Your task to perform on an android device: make emails show in primary in the gmail app Image 0: 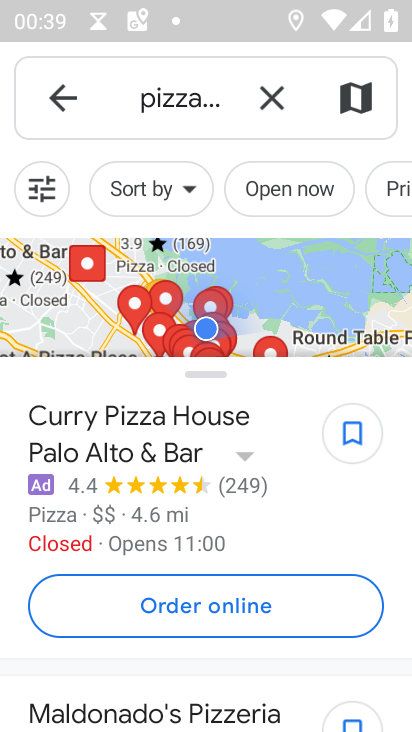
Step 0: press home button
Your task to perform on an android device: make emails show in primary in the gmail app Image 1: 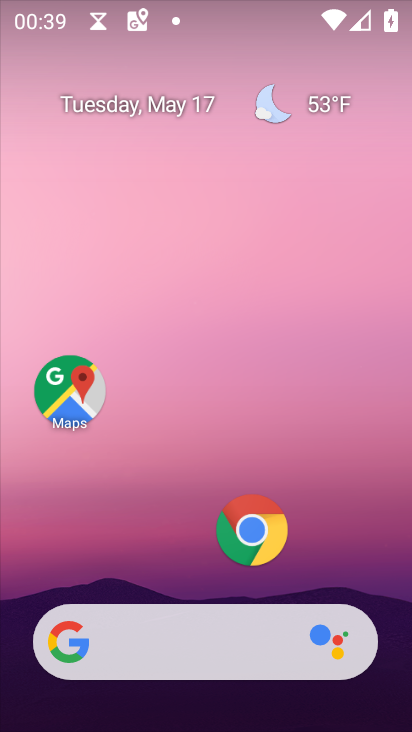
Step 1: drag from (117, 556) to (114, 67)
Your task to perform on an android device: make emails show in primary in the gmail app Image 2: 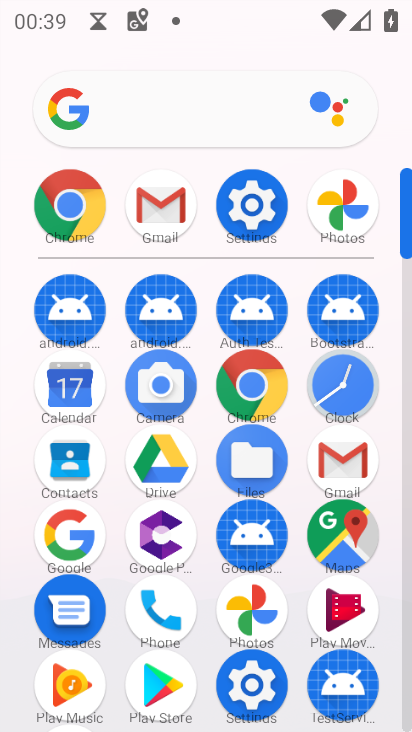
Step 2: click (174, 195)
Your task to perform on an android device: make emails show in primary in the gmail app Image 3: 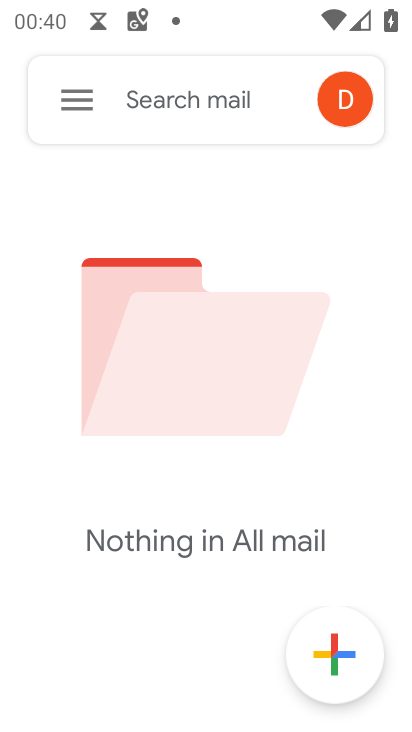
Step 3: click (81, 116)
Your task to perform on an android device: make emails show in primary in the gmail app Image 4: 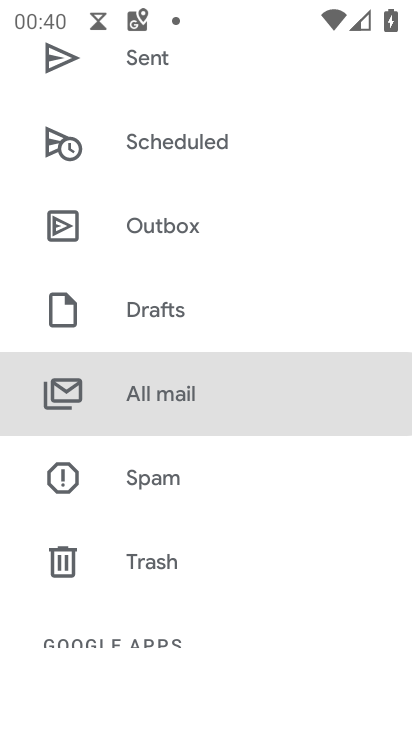
Step 4: drag from (210, 597) to (228, 351)
Your task to perform on an android device: make emails show in primary in the gmail app Image 5: 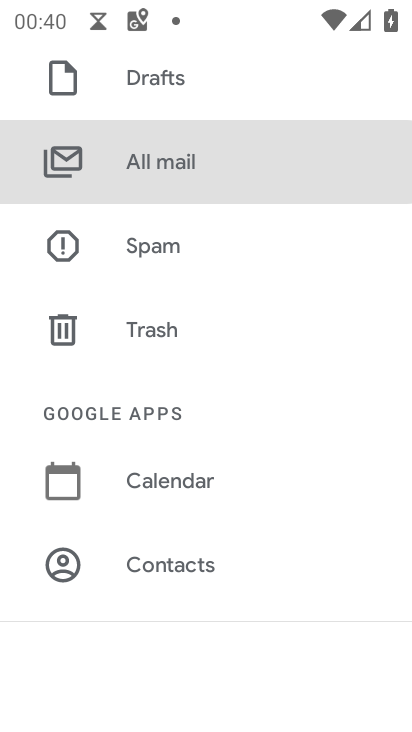
Step 5: drag from (242, 579) to (268, 395)
Your task to perform on an android device: make emails show in primary in the gmail app Image 6: 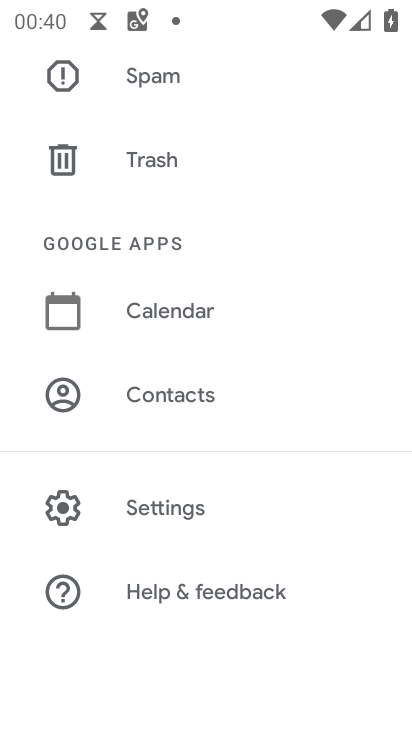
Step 6: click (204, 515)
Your task to perform on an android device: make emails show in primary in the gmail app Image 7: 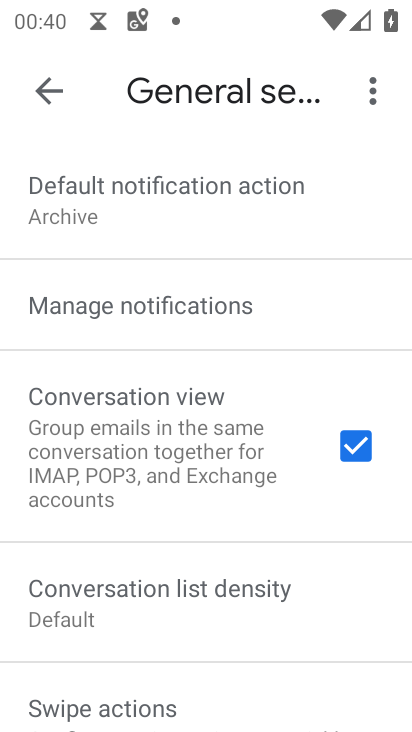
Step 7: drag from (274, 617) to (217, 238)
Your task to perform on an android device: make emails show in primary in the gmail app Image 8: 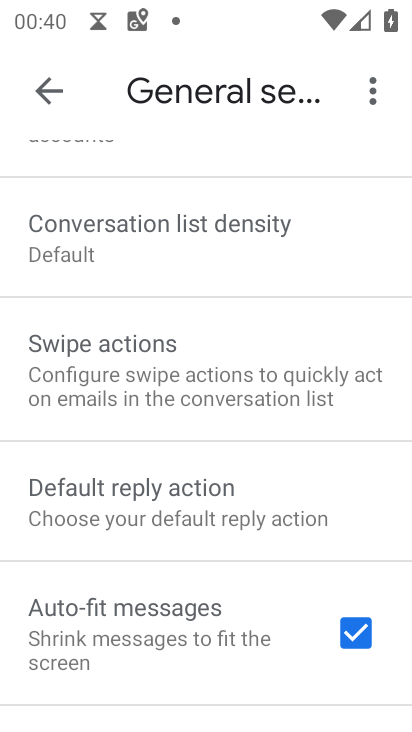
Step 8: drag from (217, 239) to (252, 474)
Your task to perform on an android device: make emails show in primary in the gmail app Image 9: 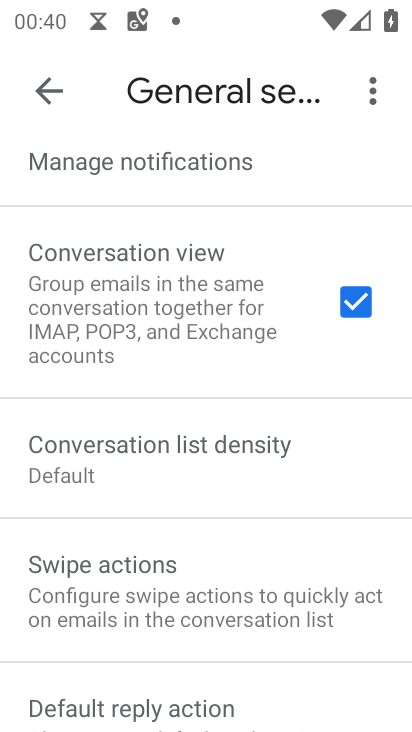
Step 9: click (58, 93)
Your task to perform on an android device: make emails show in primary in the gmail app Image 10: 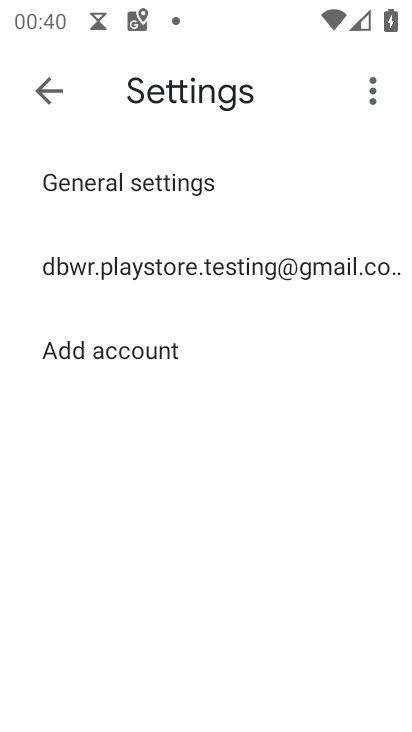
Step 10: click (177, 263)
Your task to perform on an android device: make emails show in primary in the gmail app Image 11: 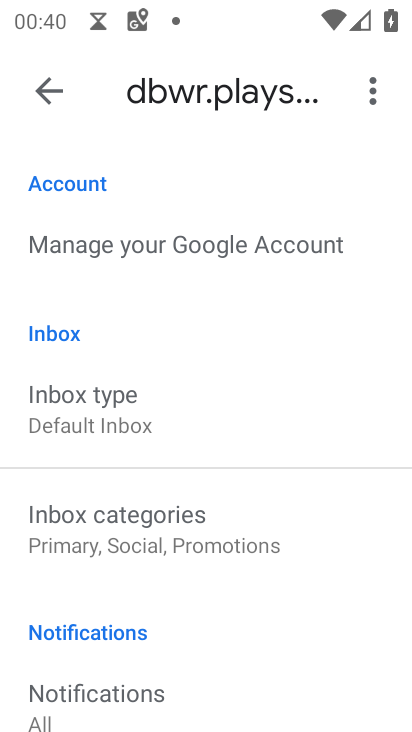
Step 11: click (161, 549)
Your task to perform on an android device: make emails show in primary in the gmail app Image 12: 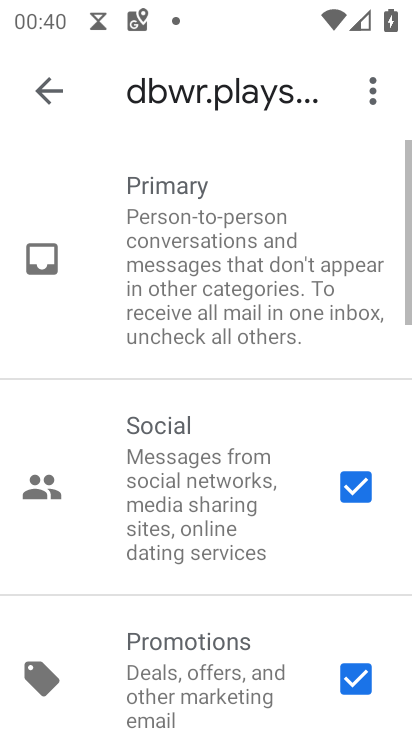
Step 12: click (349, 468)
Your task to perform on an android device: make emails show in primary in the gmail app Image 13: 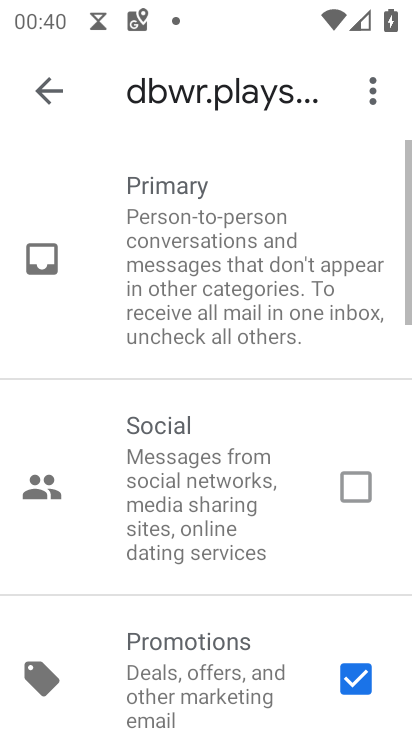
Step 13: click (362, 682)
Your task to perform on an android device: make emails show in primary in the gmail app Image 14: 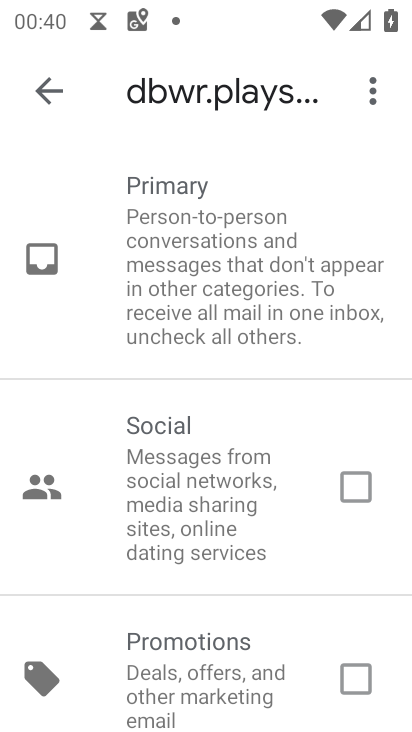
Step 14: task complete